Your task to perform on an android device: turn on translation in the chrome app Image 0: 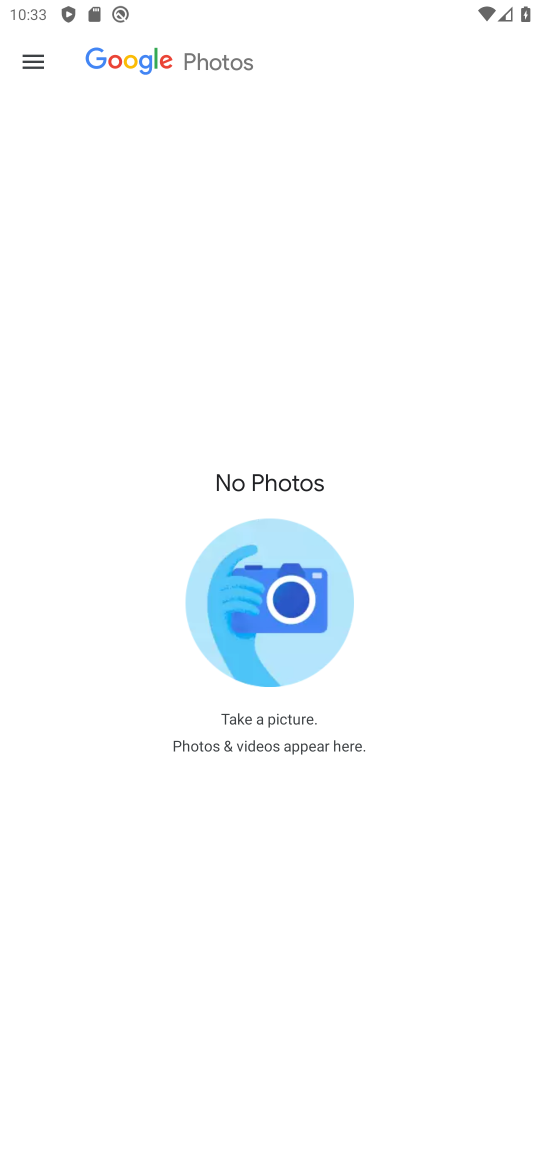
Step 0: task complete